Your task to perform on an android device: Go to CNN.com Image 0: 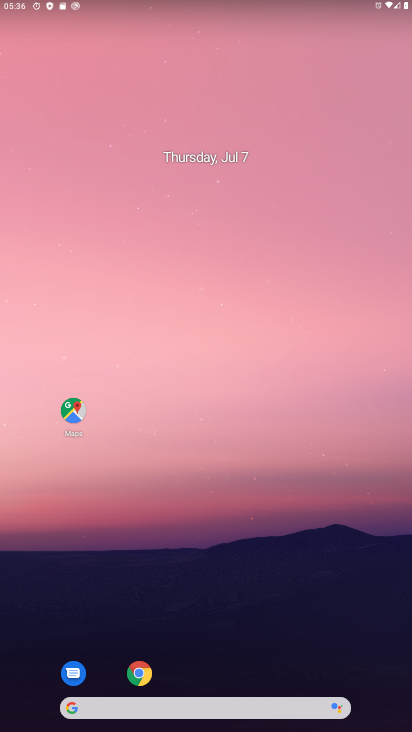
Step 0: drag from (329, 710) to (291, 36)
Your task to perform on an android device: Go to CNN.com Image 1: 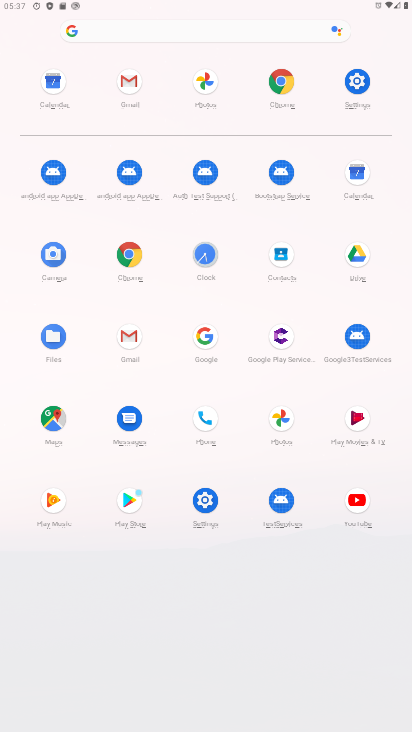
Step 1: click (133, 258)
Your task to perform on an android device: Go to CNN.com Image 2: 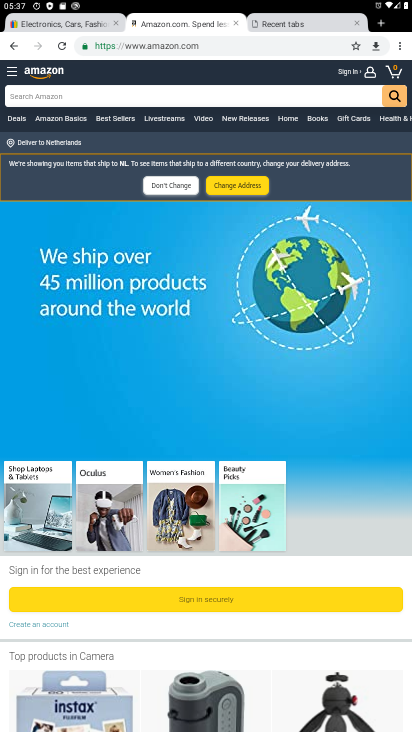
Step 2: click (209, 47)
Your task to perform on an android device: Go to CNN.com Image 3: 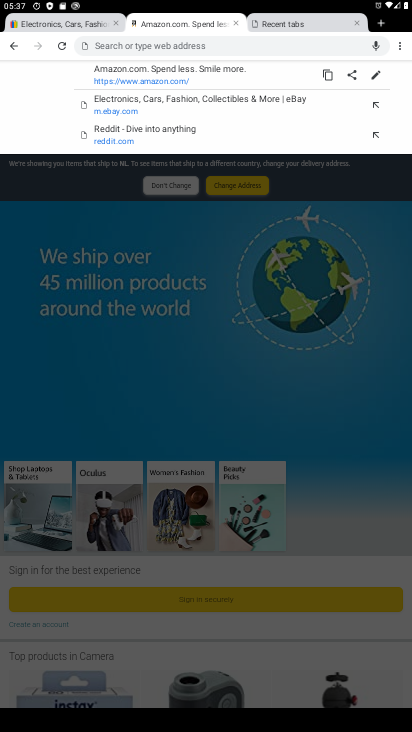
Step 3: type "cnn.com"
Your task to perform on an android device: Go to CNN.com Image 4: 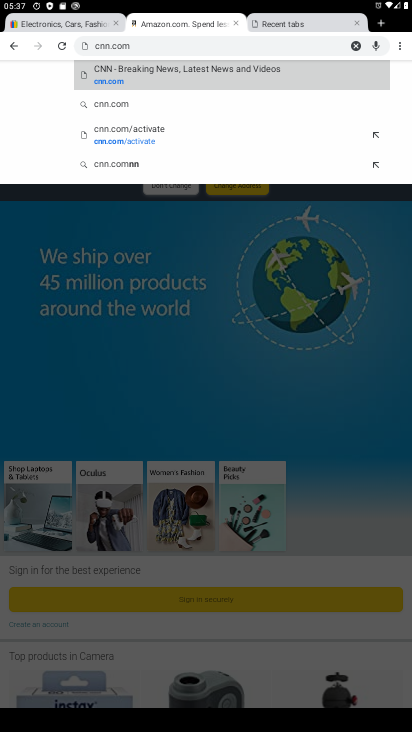
Step 4: click (267, 69)
Your task to perform on an android device: Go to CNN.com Image 5: 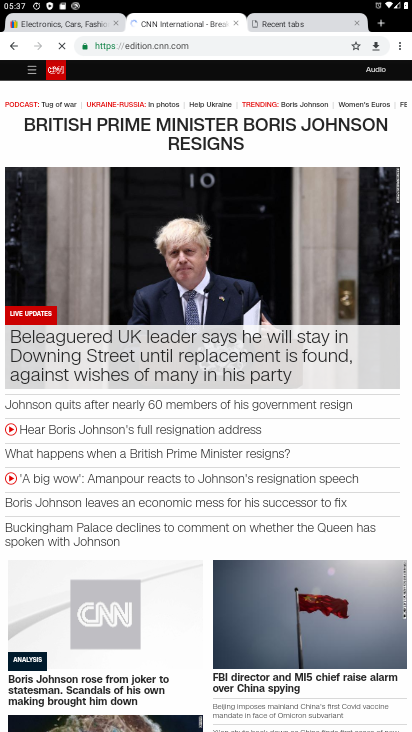
Step 5: task complete